Your task to perform on an android device: Go to eBay Image 0: 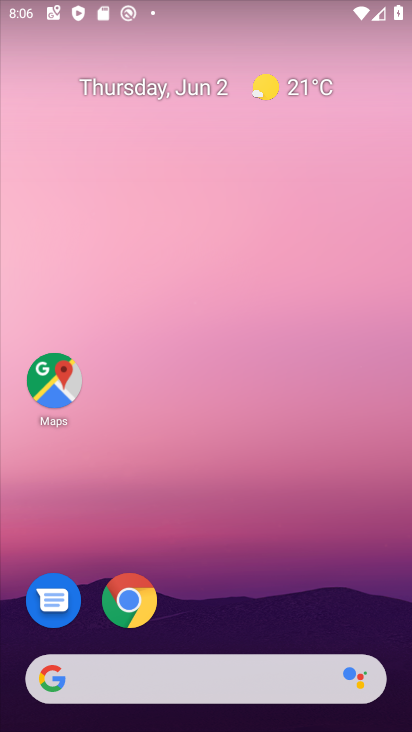
Step 0: drag from (364, 598) to (363, 202)
Your task to perform on an android device: Go to eBay Image 1: 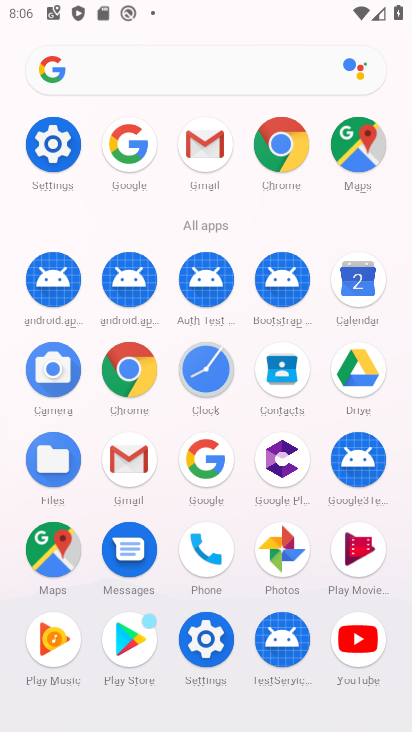
Step 1: click (135, 374)
Your task to perform on an android device: Go to eBay Image 2: 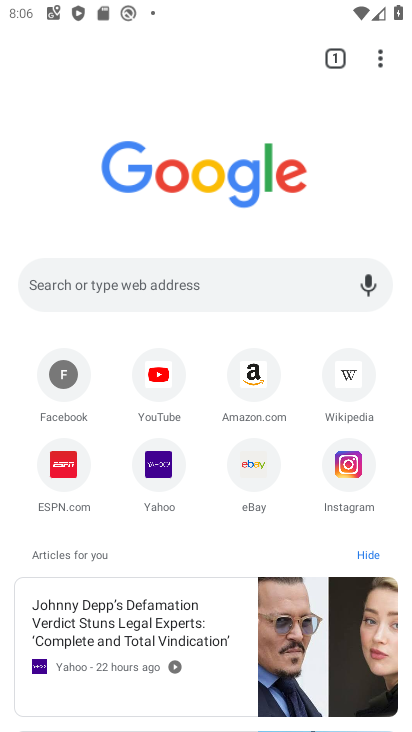
Step 2: click (245, 480)
Your task to perform on an android device: Go to eBay Image 3: 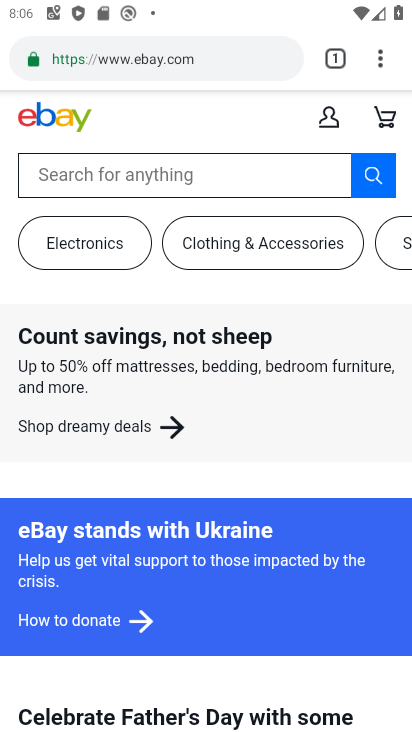
Step 3: task complete